Your task to perform on an android device: find snoozed emails in the gmail app Image 0: 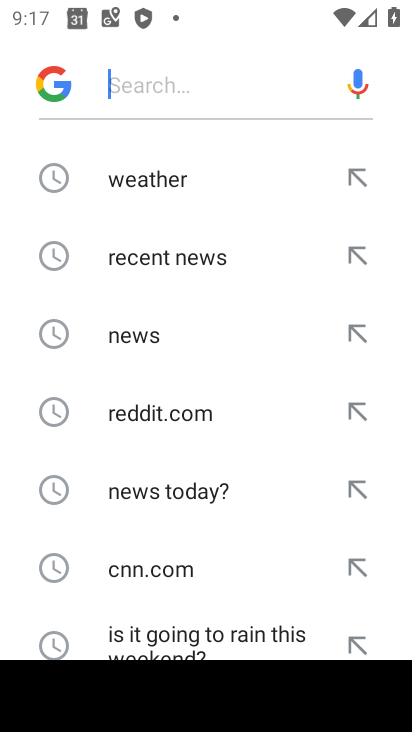
Step 0: press back button
Your task to perform on an android device: find snoozed emails in the gmail app Image 1: 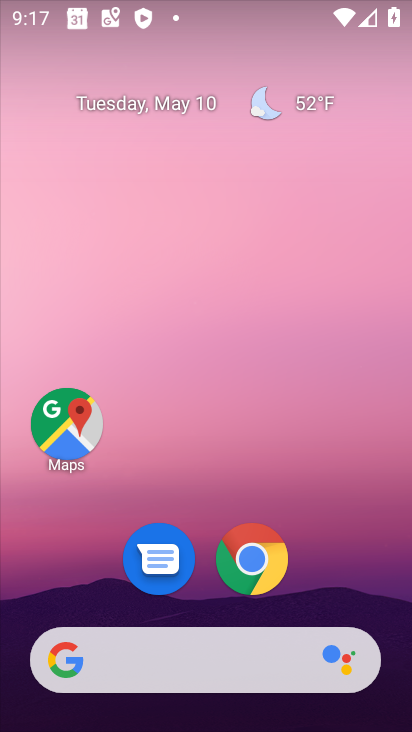
Step 1: drag from (351, 473) to (255, 27)
Your task to perform on an android device: find snoozed emails in the gmail app Image 2: 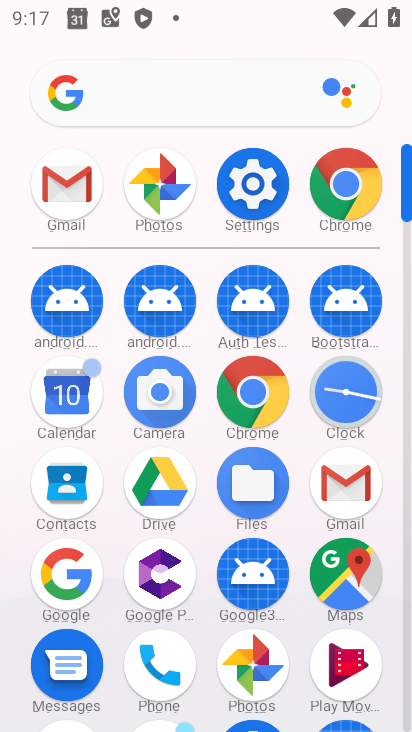
Step 2: drag from (12, 559) to (19, 242)
Your task to perform on an android device: find snoozed emails in the gmail app Image 3: 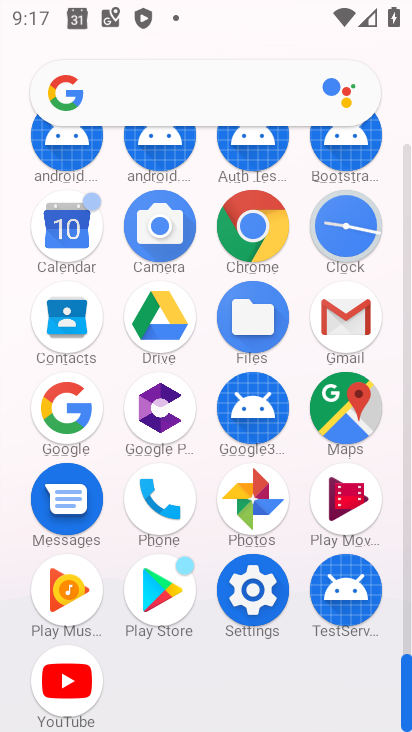
Step 3: click (343, 306)
Your task to perform on an android device: find snoozed emails in the gmail app Image 4: 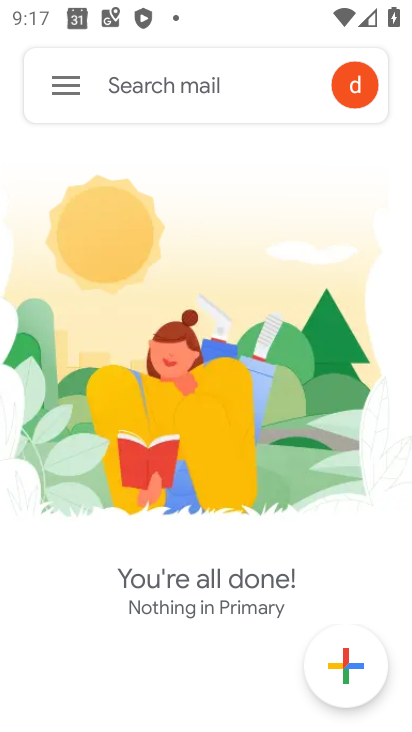
Step 4: click (63, 69)
Your task to perform on an android device: find snoozed emails in the gmail app Image 5: 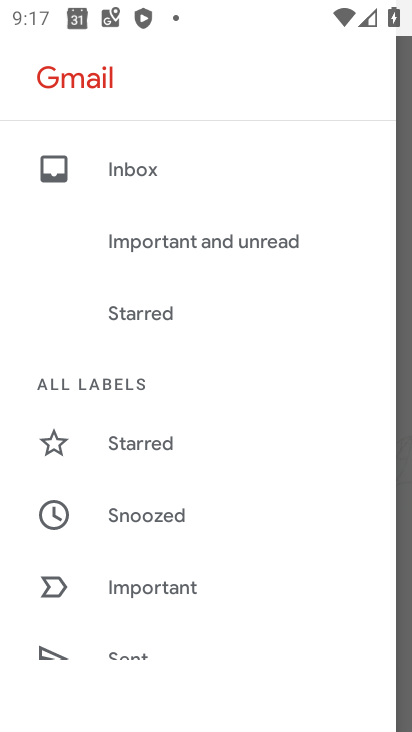
Step 5: drag from (233, 539) to (201, 215)
Your task to perform on an android device: find snoozed emails in the gmail app Image 6: 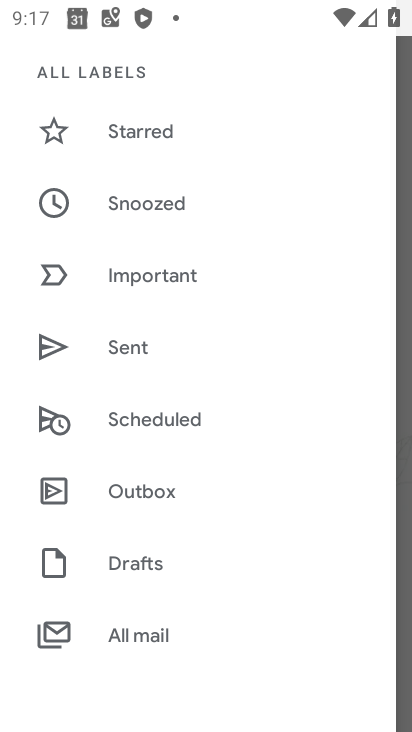
Step 6: click (165, 192)
Your task to perform on an android device: find snoozed emails in the gmail app Image 7: 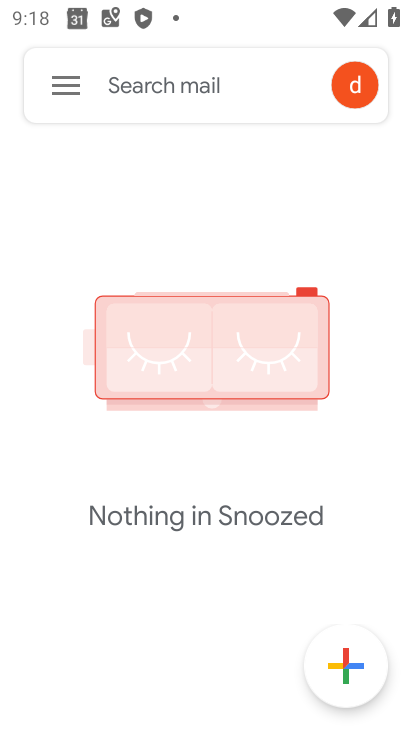
Step 7: task complete